Your task to perform on an android device: Check the settings for the Amazon Music app Image 0: 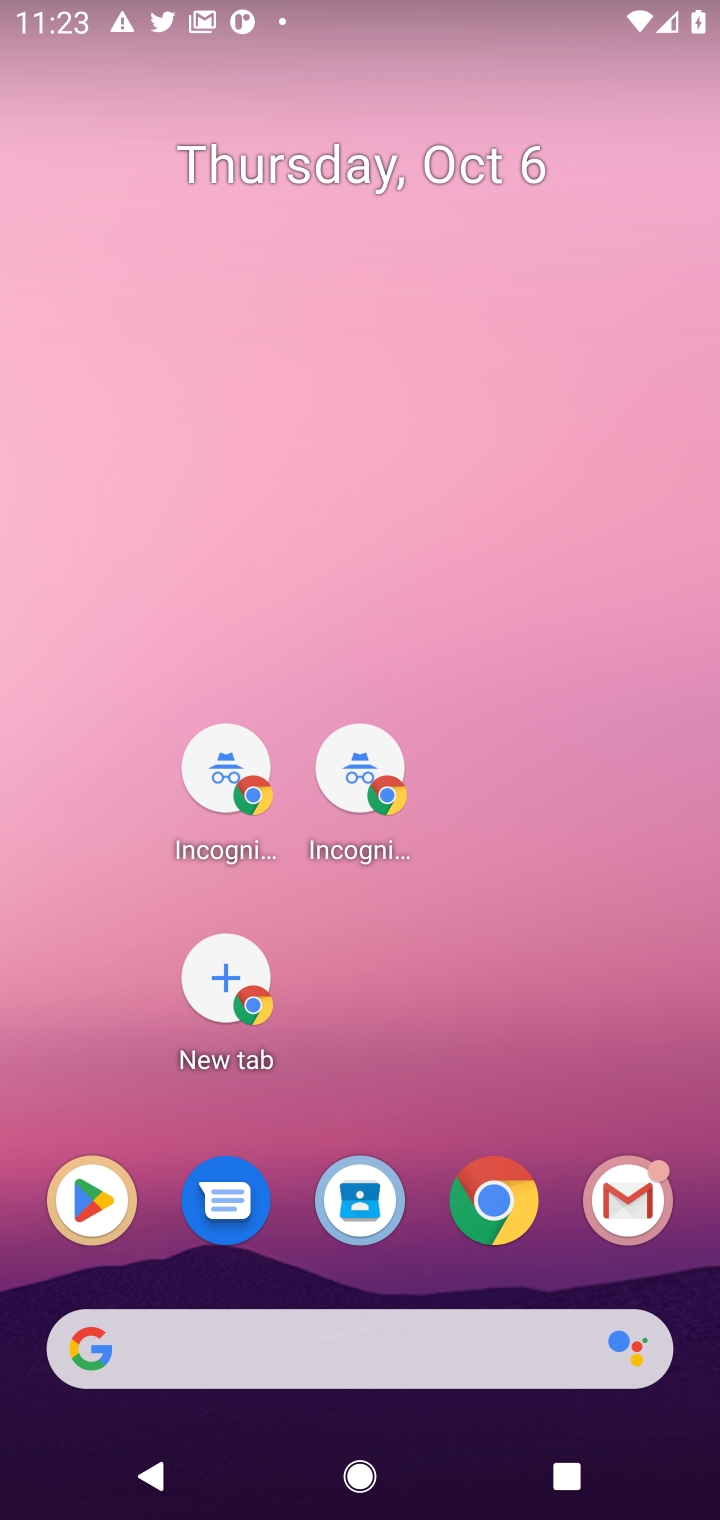
Step 0: click (490, 1198)
Your task to perform on an android device: Check the settings for the Amazon Music app Image 1: 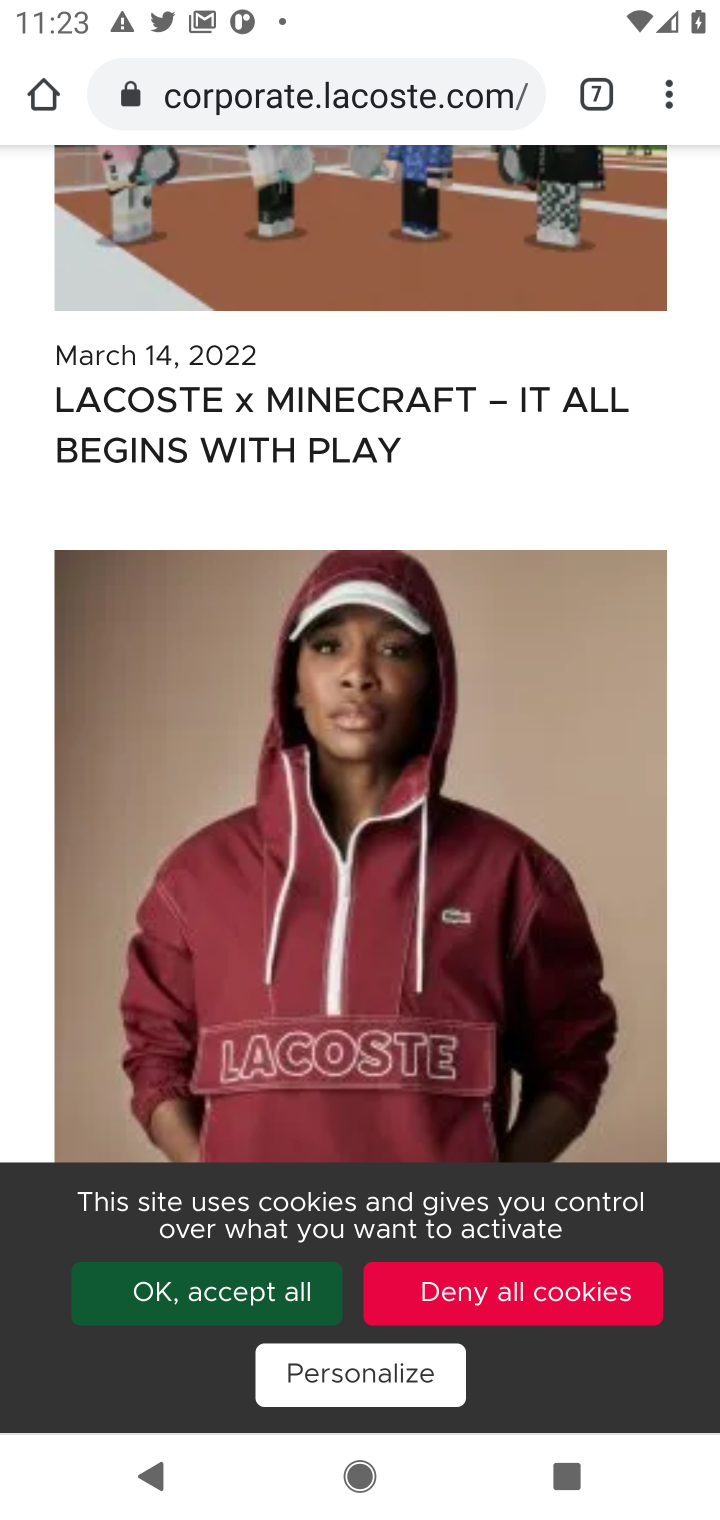
Step 1: click (412, 101)
Your task to perform on an android device: Check the settings for the Amazon Music app Image 2: 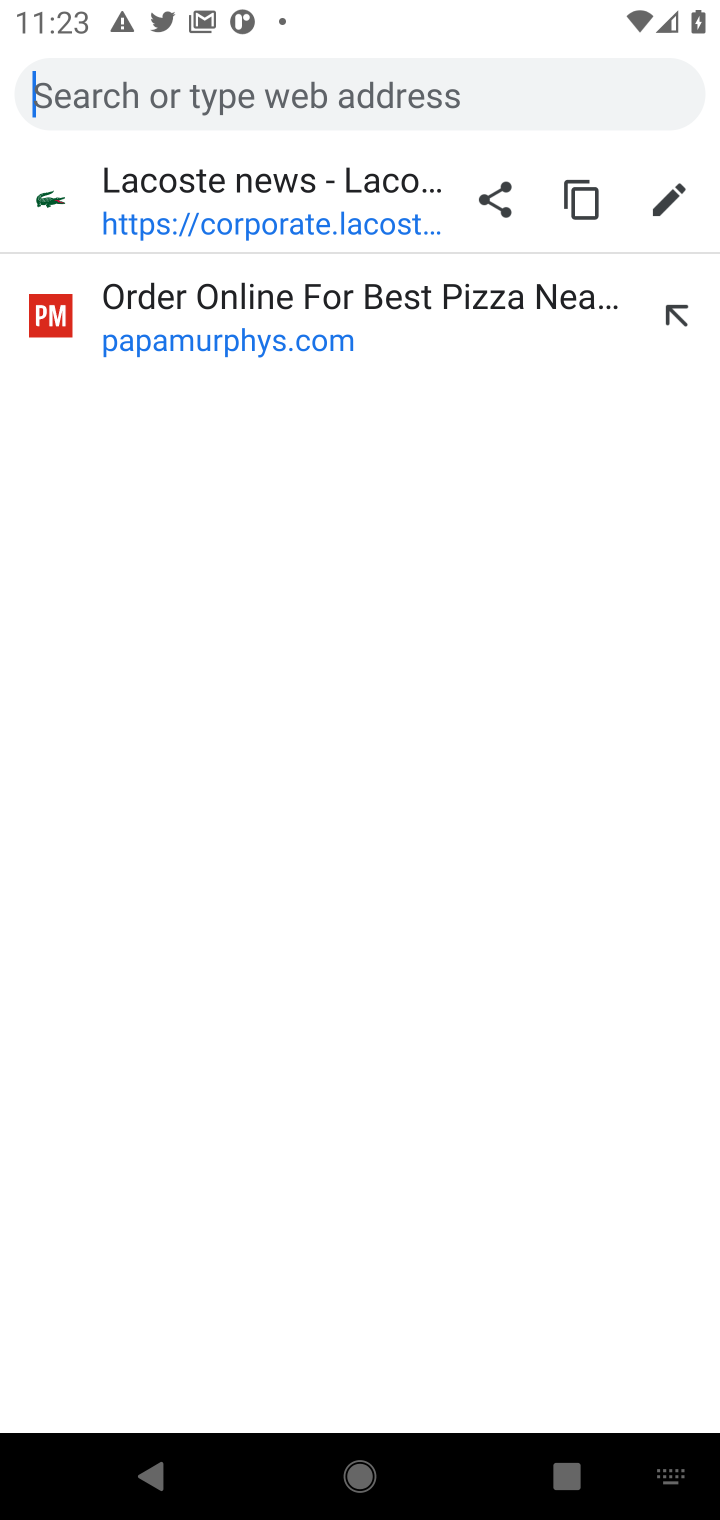
Step 2: type "amazon music app"
Your task to perform on an android device: Check the settings for the Amazon Music app Image 3: 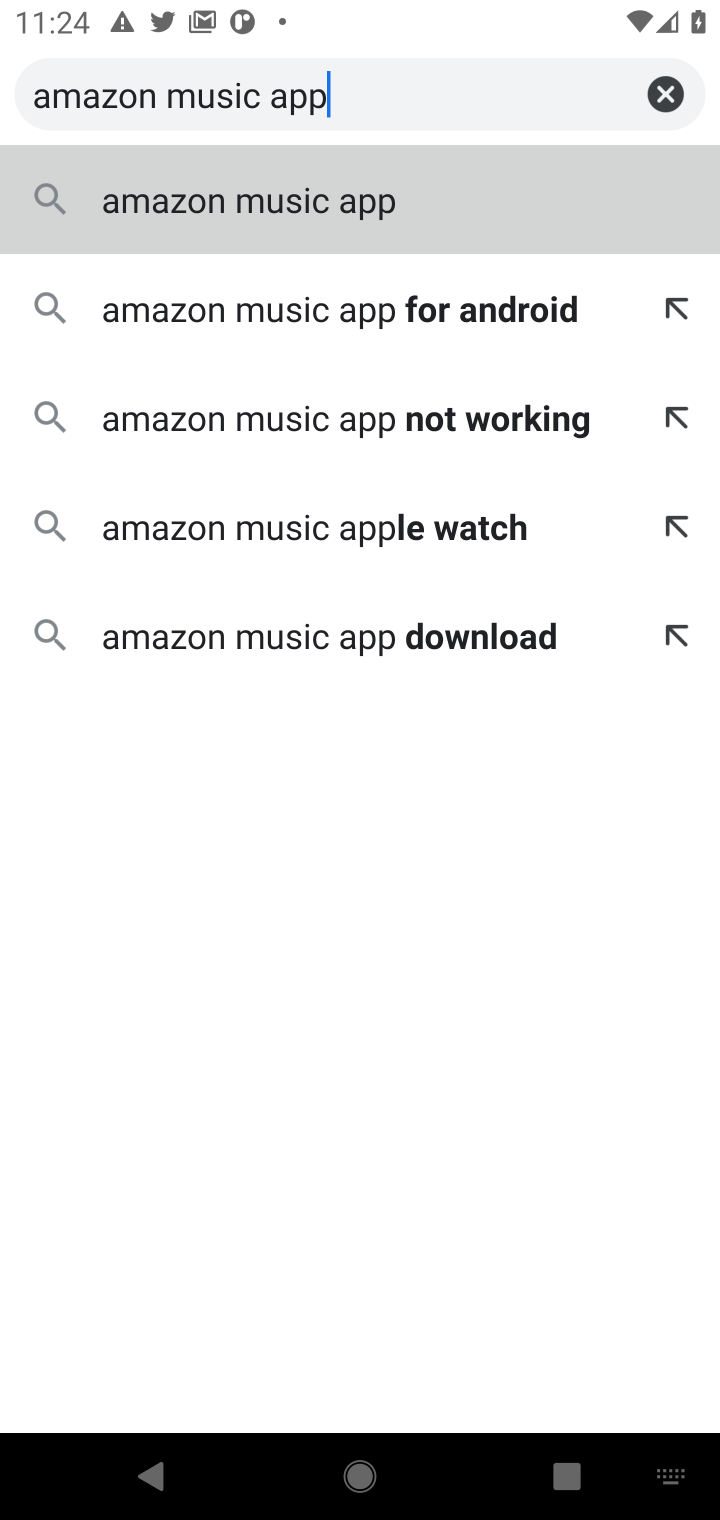
Step 3: click (305, 208)
Your task to perform on an android device: Check the settings for the Amazon Music app Image 4: 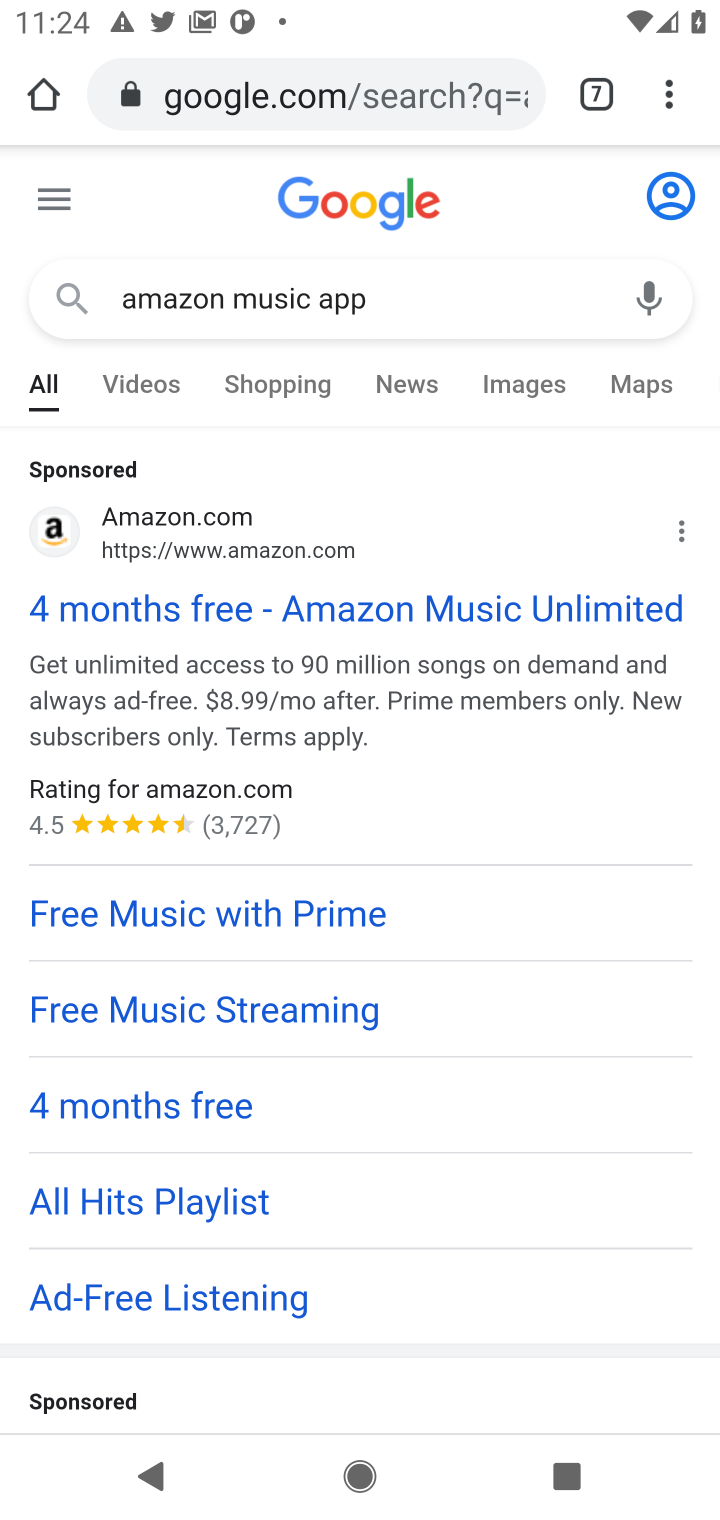
Step 4: click (376, 617)
Your task to perform on an android device: Check the settings for the Amazon Music app Image 5: 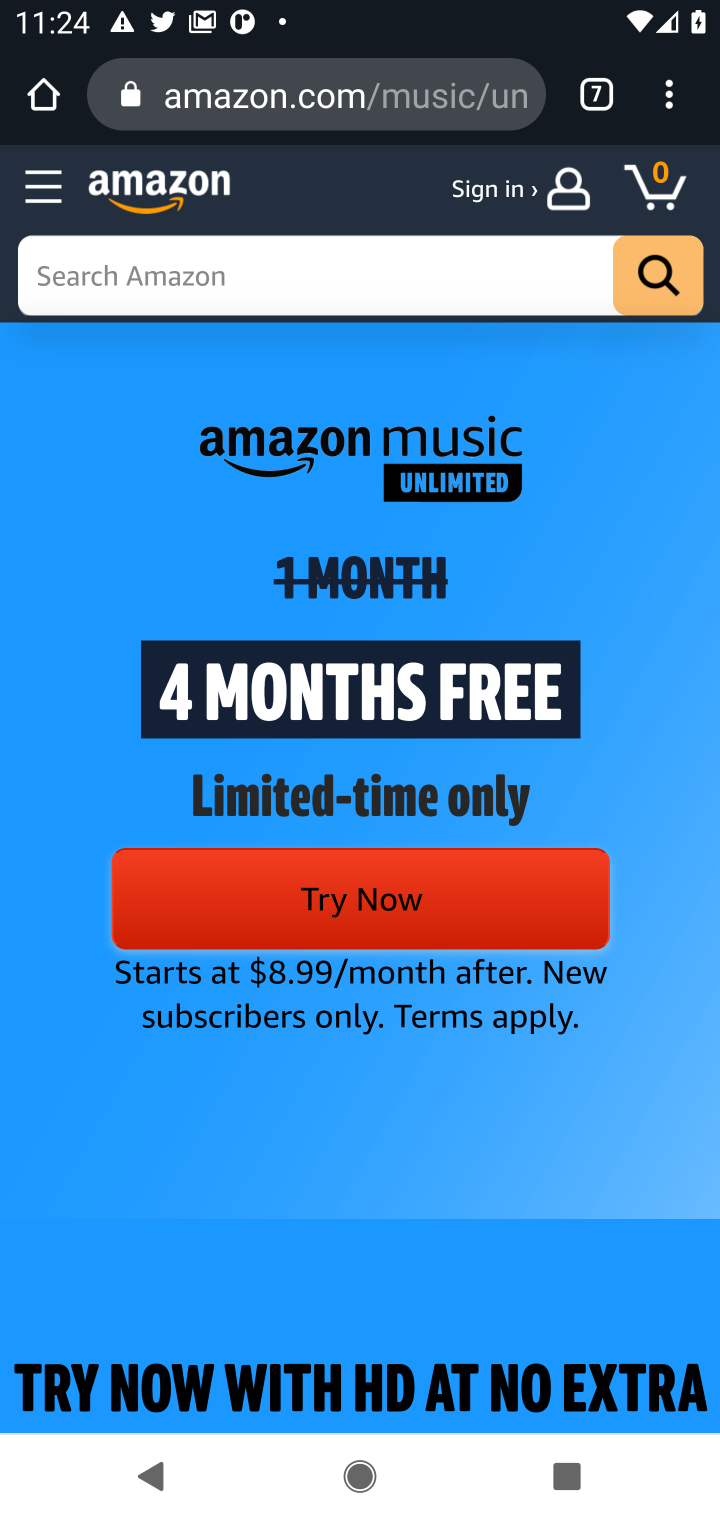
Step 5: task complete